Your task to perform on an android device: Search for Mexican restaurants on Maps Image 0: 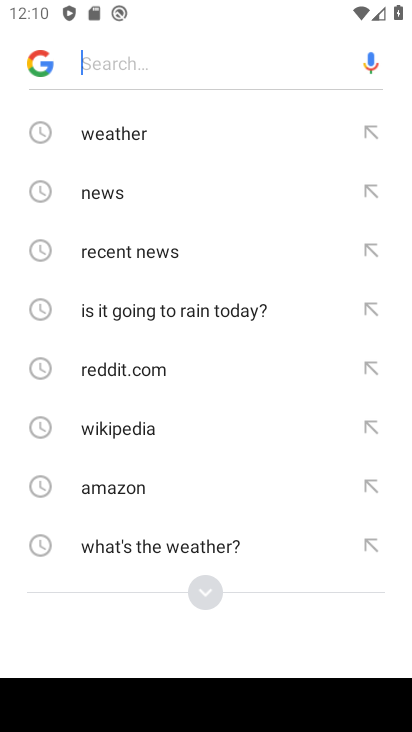
Step 0: press home button
Your task to perform on an android device: Search for Mexican restaurants on Maps Image 1: 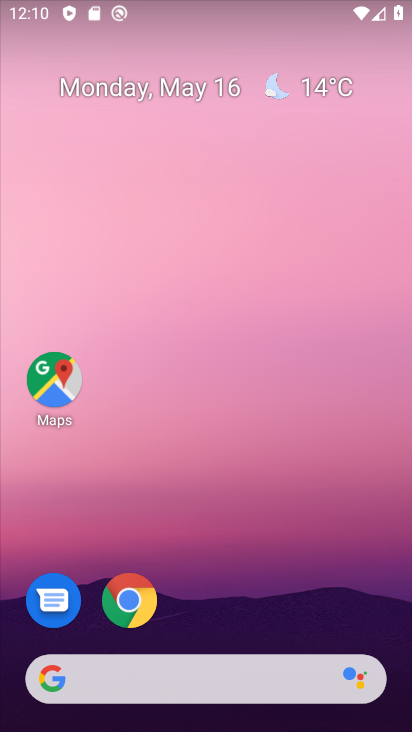
Step 1: click (61, 380)
Your task to perform on an android device: Search for Mexican restaurants on Maps Image 2: 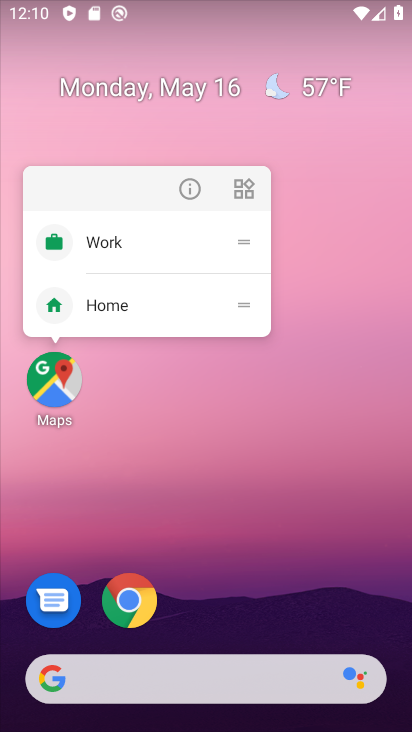
Step 2: click (52, 386)
Your task to perform on an android device: Search for Mexican restaurants on Maps Image 3: 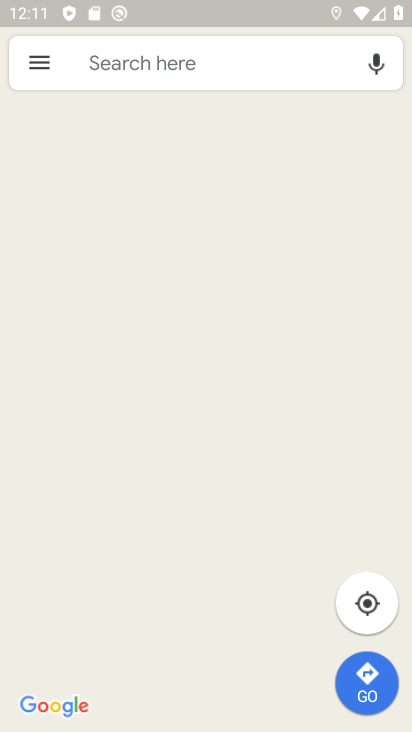
Step 3: click (126, 66)
Your task to perform on an android device: Search for Mexican restaurants on Maps Image 4: 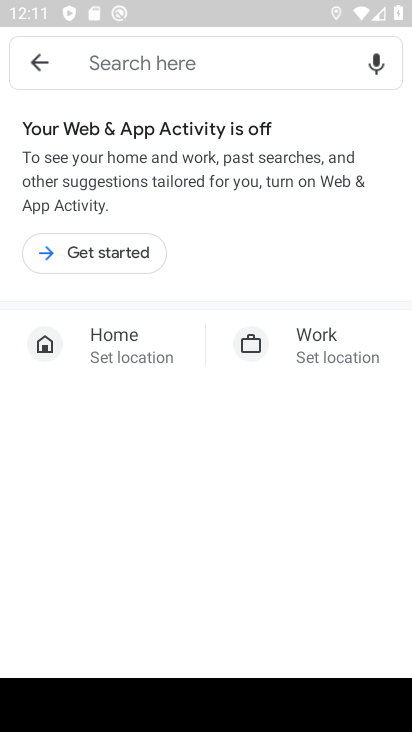
Step 4: click (126, 66)
Your task to perform on an android device: Search for Mexican restaurants on Maps Image 5: 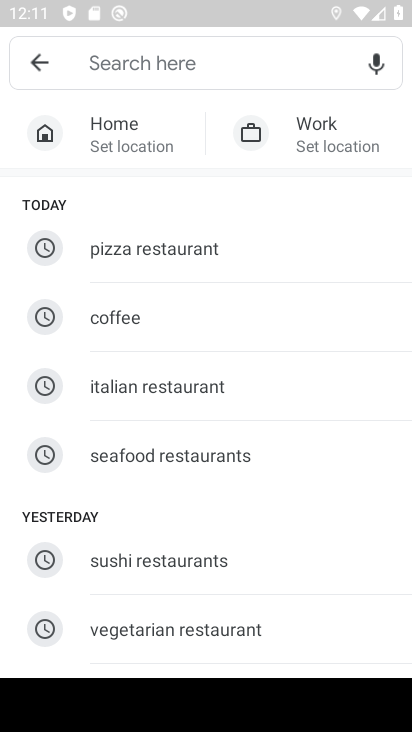
Step 5: type "mexican"
Your task to perform on an android device: Search for Mexican restaurants on Maps Image 6: 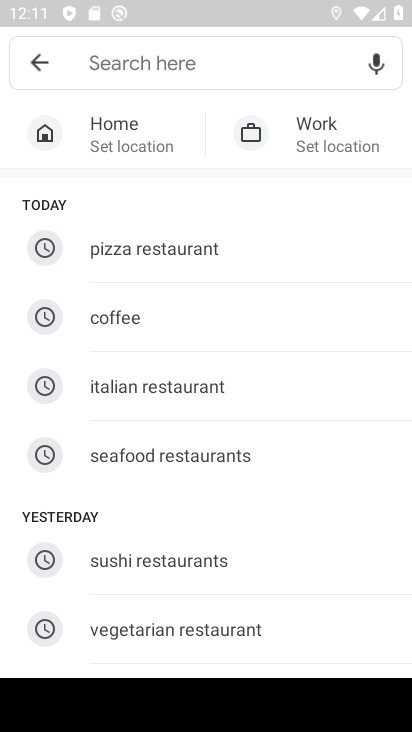
Step 6: click (259, 151)
Your task to perform on an android device: Search for Mexican restaurants on Maps Image 7: 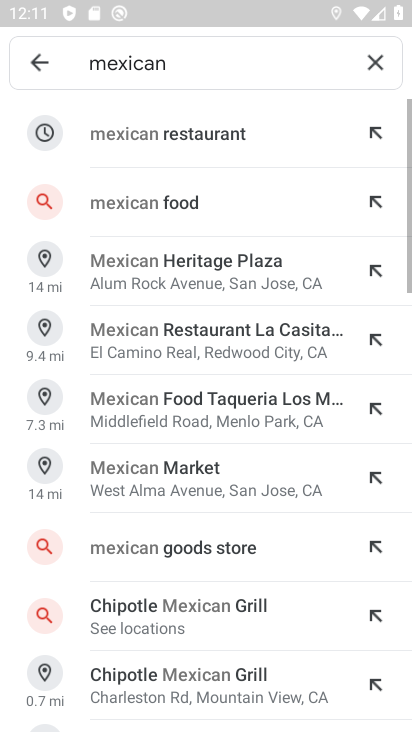
Step 7: click (118, 122)
Your task to perform on an android device: Search for Mexican restaurants on Maps Image 8: 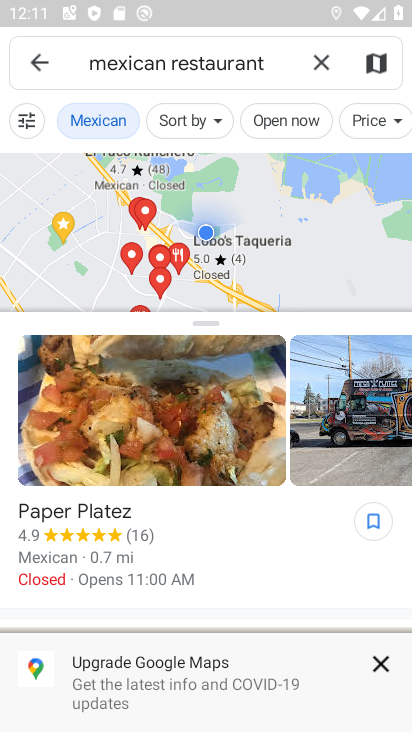
Step 8: task complete